Your task to perform on an android device: turn on the 24-hour format for clock Image 0: 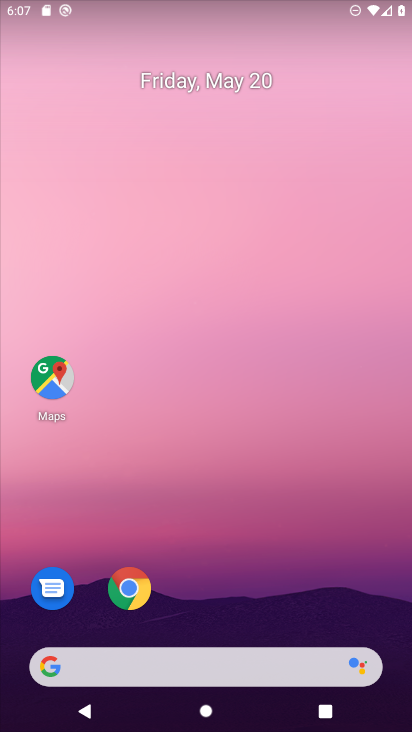
Step 0: drag from (212, 593) to (298, 6)
Your task to perform on an android device: turn on the 24-hour format for clock Image 1: 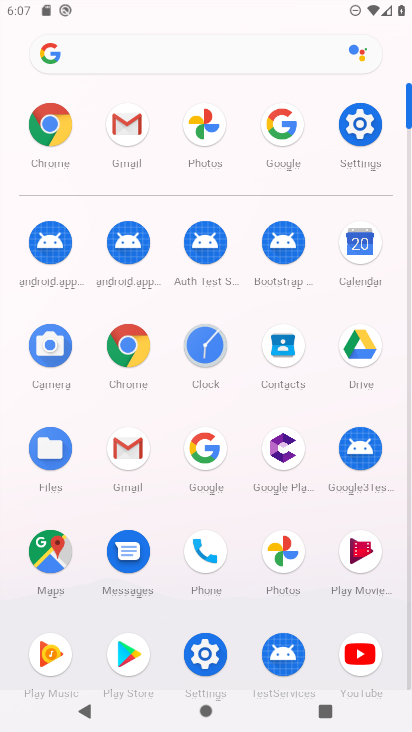
Step 1: click (202, 341)
Your task to perform on an android device: turn on the 24-hour format for clock Image 2: 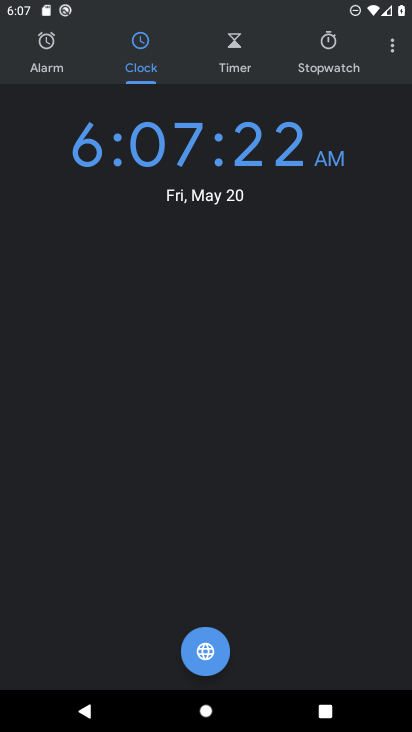
Step 2: click (386, 46)
Your task to perform on an android device: turn on the 24-hour format for clock Image 3: 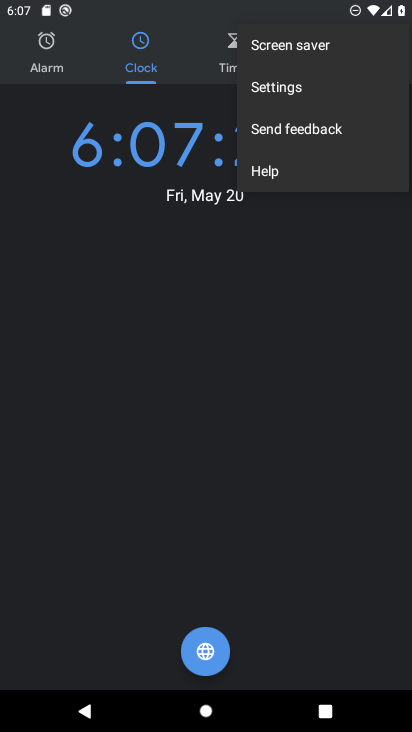
Step 3: click (297, 81)
Your task to perform on an android device: turn on the 24-hour format for clock Image 4: 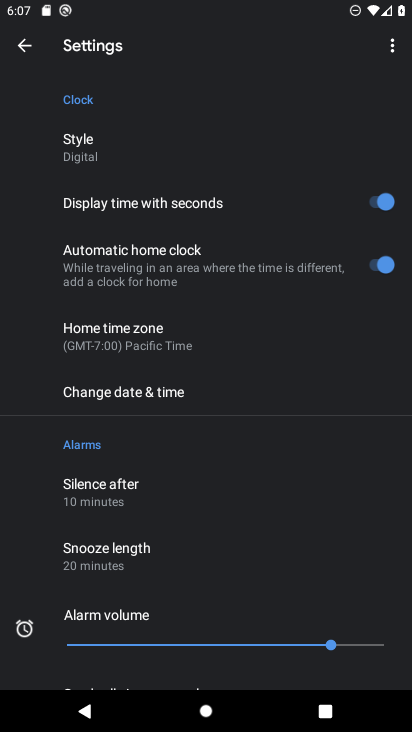
Step 4: click (137, 398)
Your task to perform on an android device: turn on the 24-hour format for clock Image 5: 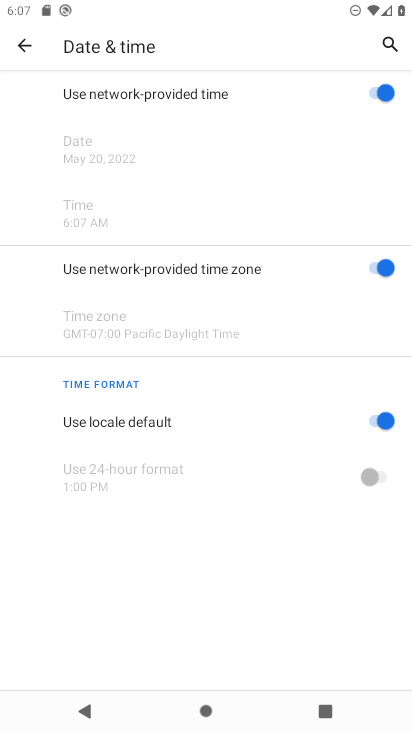
Step 5: click (381, 417)
Your task to perform on an android device: turn on the 24-hour format for clock Image 6: 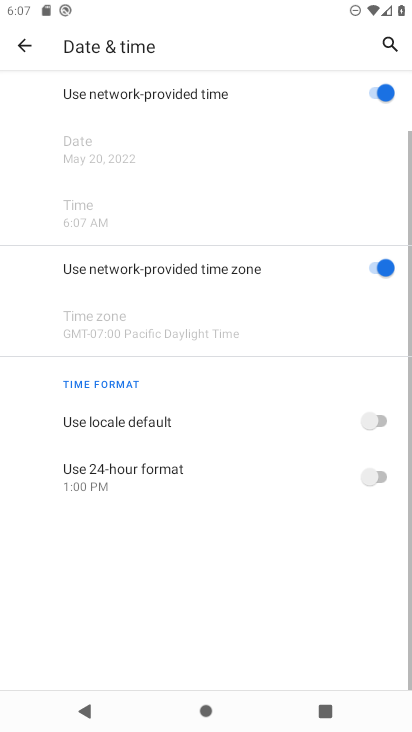
Step 6: click (382, 484)
Your task to perform on an android device: turn on the 24-hour format for clock Image 7: 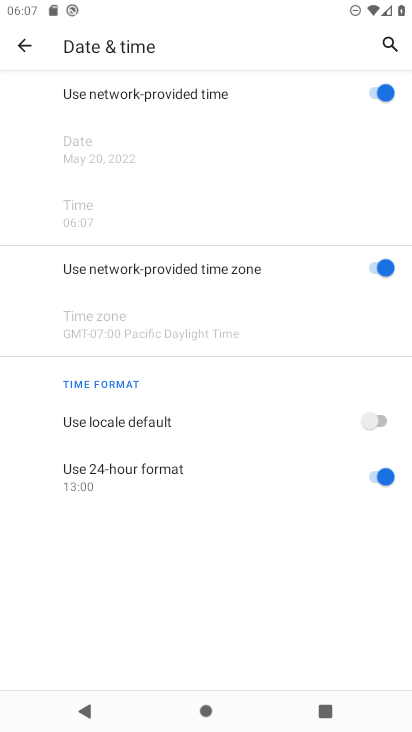
Step 7: task complete